Your task to perform on an android device: Open the map Image 0: 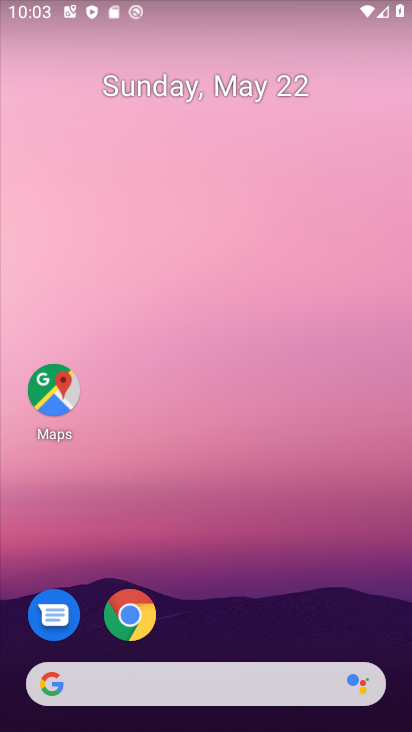
Step 0: click (61, 377)
Your task to perform on an android device: Open the map Image 1: 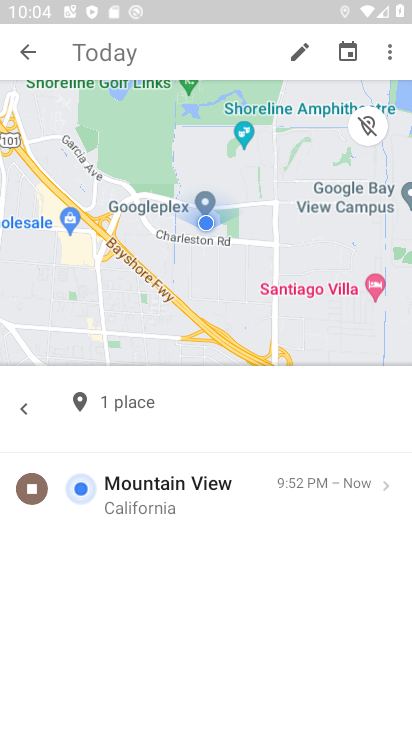
Step 1: task complete